Your task to perform on an android device: What's the weather today? Image 0: 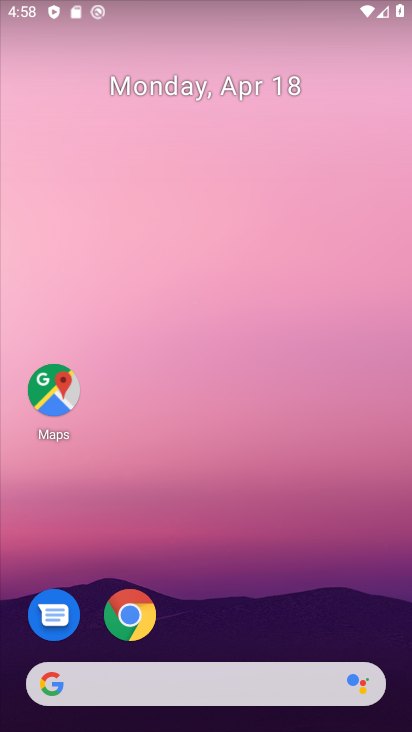
Step 0: click (118, 615)
Your task to perform on an android device: What's the weather today? Image 1: 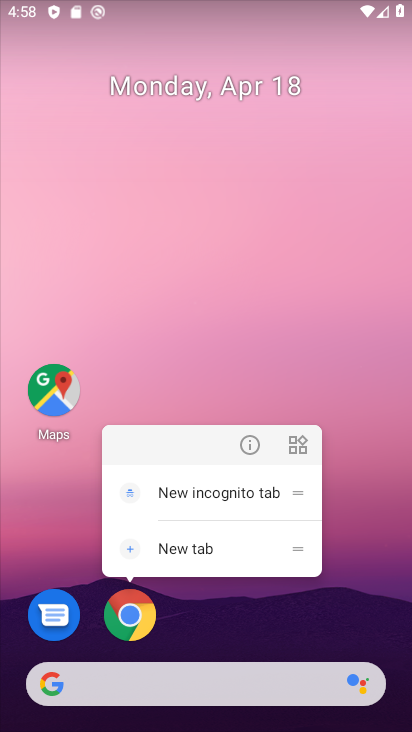
Step 1: drag from (276, 617) to (229, 166)
Your task to perform on an android device: What's the weather today? Image 2: 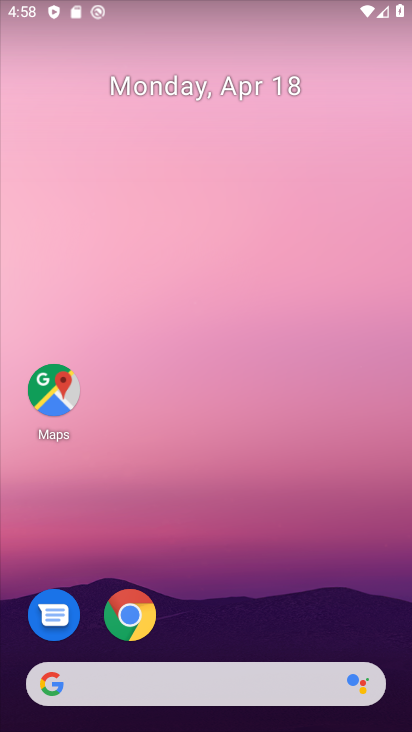
Step 2: drag from (309, 611) to (298, 0)
Your task to perform on an android device: What's the weather today? Image 3: 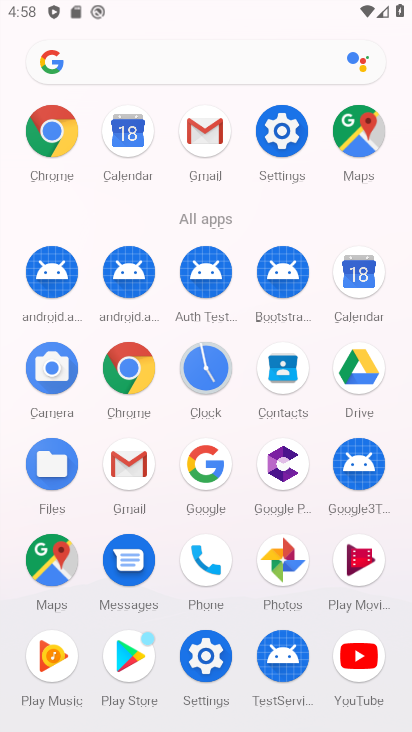
Step 3: click (56, 132)
Your task to perform on an android device: What's the weather today? Image 4: 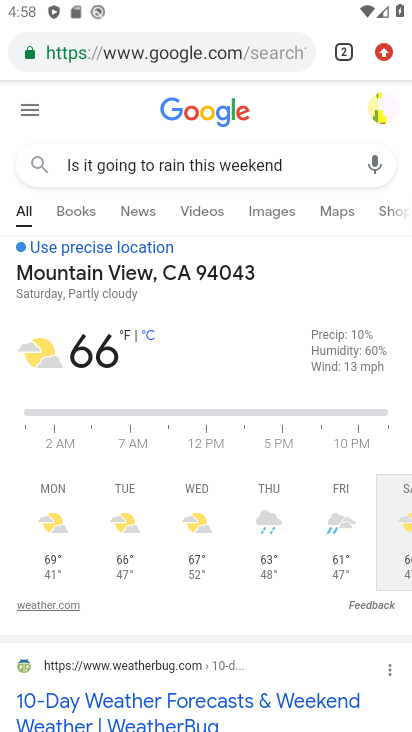
Step 4: click (313, 158)
Your task to perform on an android device: What's the weather today? Image 5: 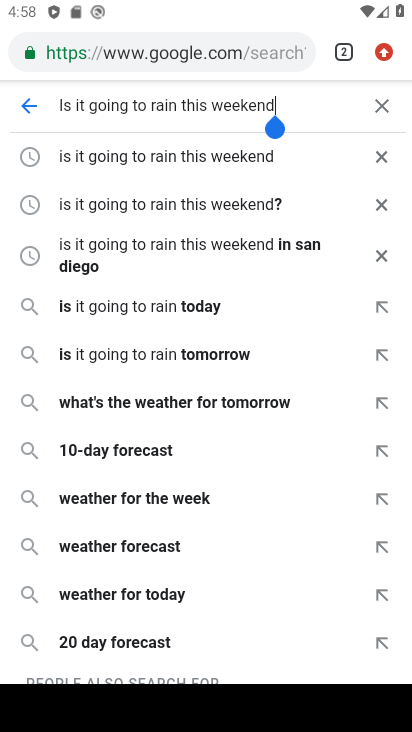
Step 5: click (313, 158)
Your task to perform on an android device: What's the weather today? Image 6: 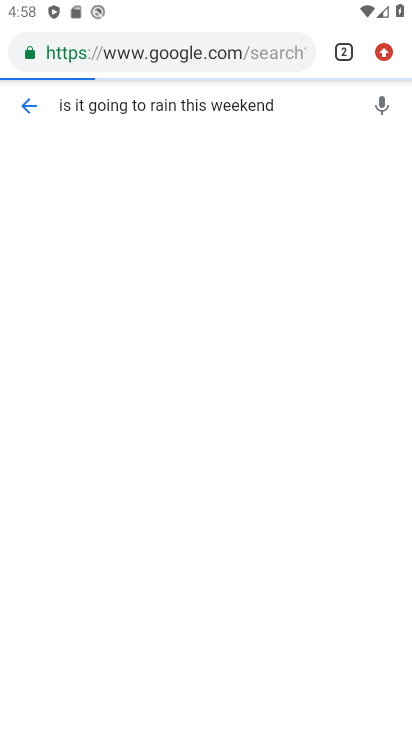
Step 6: click (312, 105)
Your task to perform on an android device: What's the weather today? Image 7: 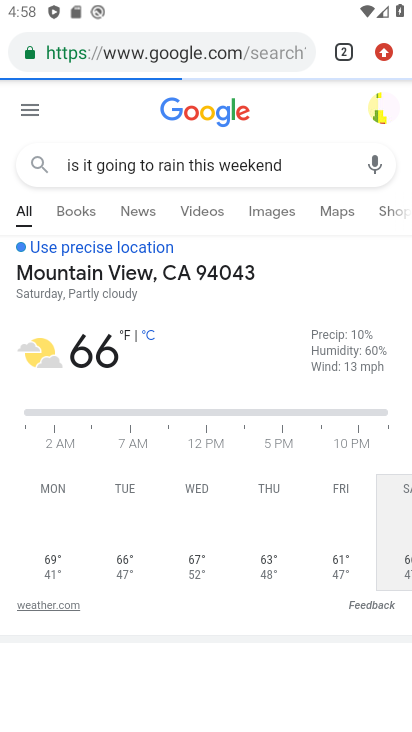
Step 7: click (312, 105)
Your task to perform on an android device: What's the weather today? Image 8: 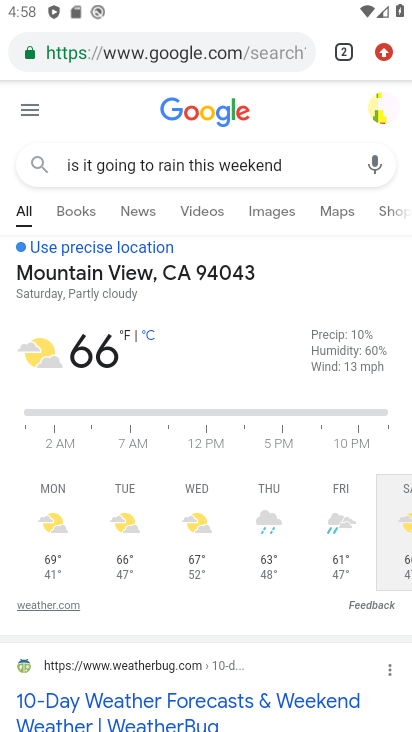
Step 8: click (310, 176)
Your task to perform on an android device: What's the weather today? Image 9: 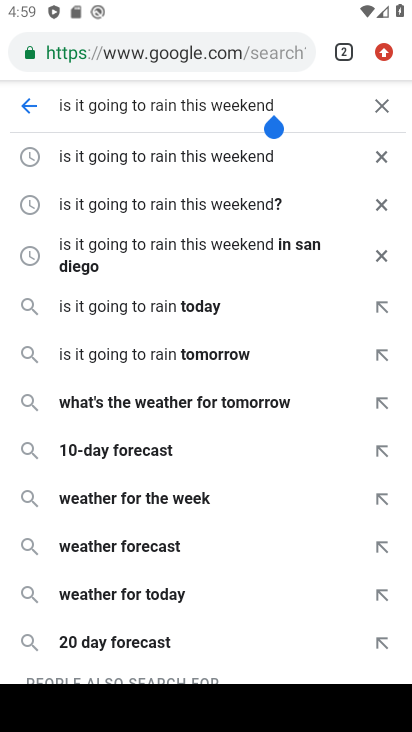
Step 9: type ""
Your task to perform on an android device: What's the weather today? Image 10: 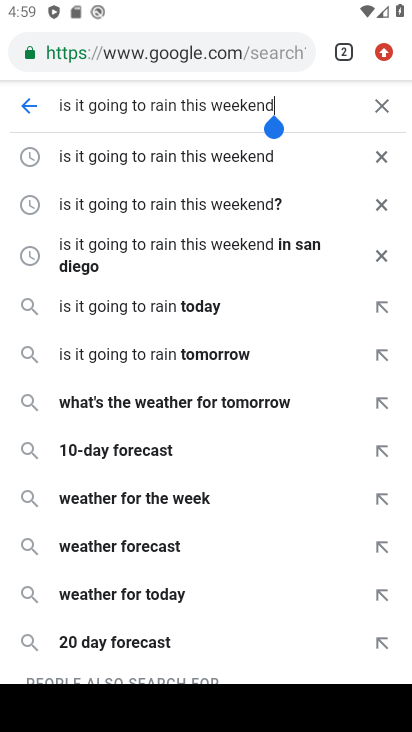
Step 10: click (374, 111)
Your task to perform on an android device: What's the weather today? Image 11: 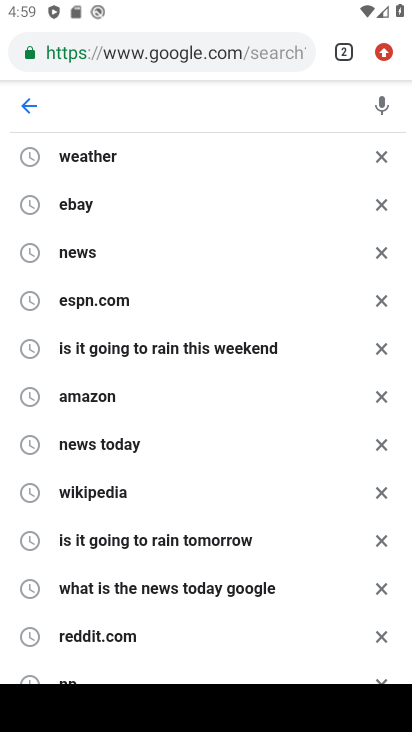
Step 11: click (288, 107)
Your task to perform on an android device: What's the weather today? Image 12: 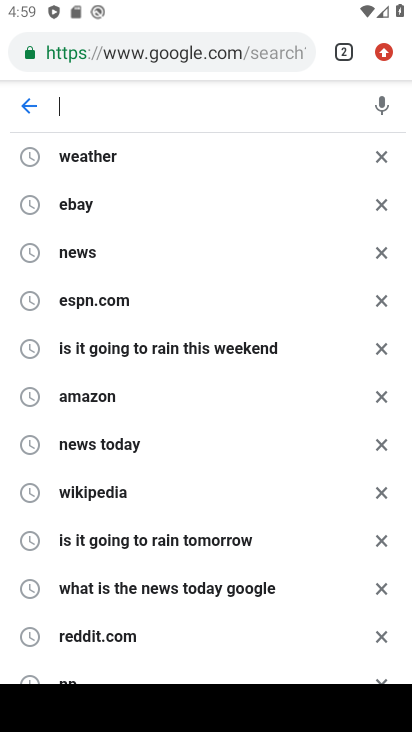
Step 12: type "weather"
Your task to perform on an android device: What's the weather today? Image 13: 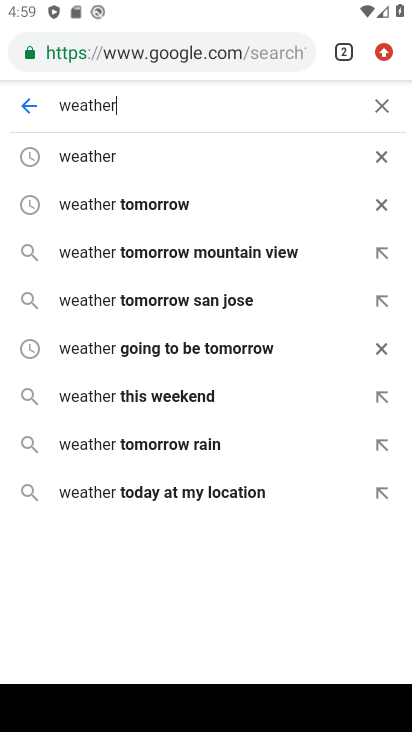
Step 13: click (131, 152)
Your task to perform on an android device: What's the weather today? Image 14: 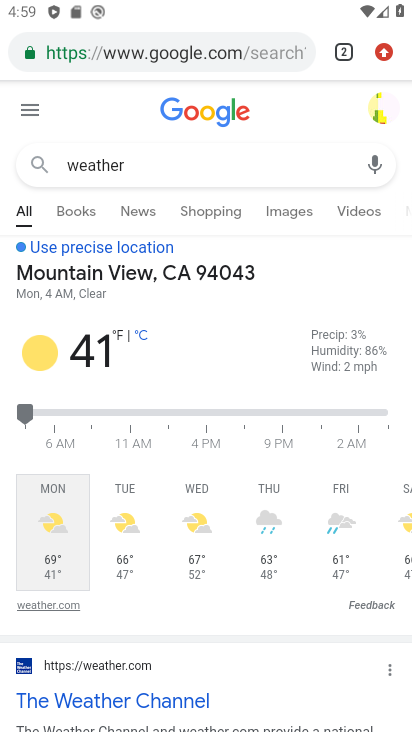
Step 14: task complete